Your task to perform on an android device: Open location settings Image 0: 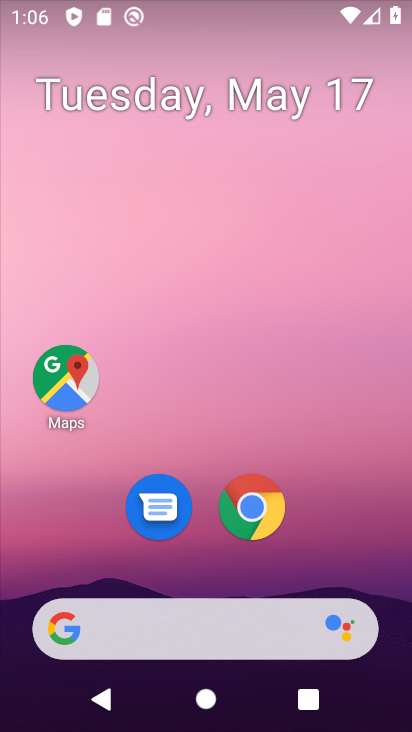
Step 0: drag from (307, 478) to (317, 178)
Your task to perform on an android device: Open location settings Image 1: 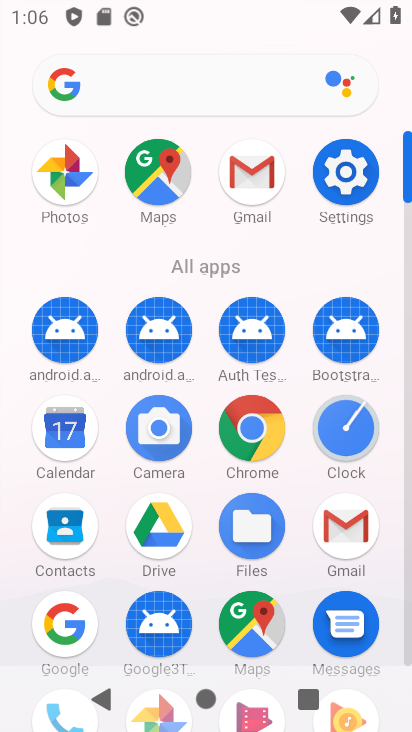
Step 1: click (338, 177)
Your task to perform on an android device: Open location settings Image 2: 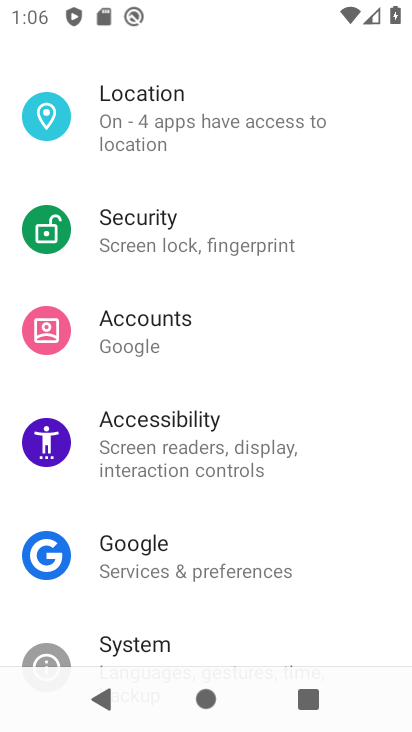
Step 2: click (249, 94)
Your task to perform on an android device: Open location settings Image 3: 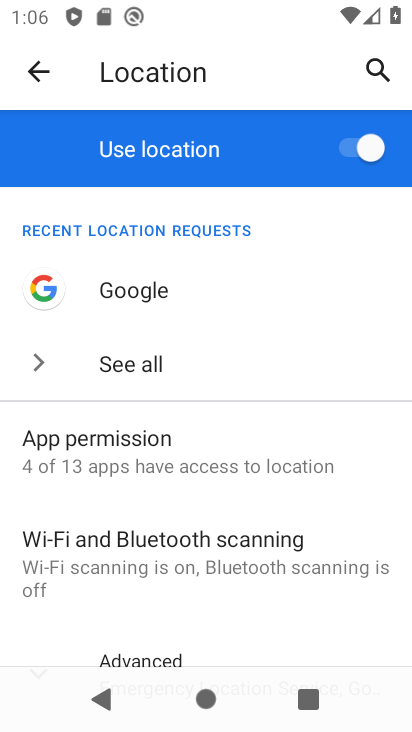
Step 3: task complete